Your task to perform on an android device: Do I have any events this weekend? Image 0: 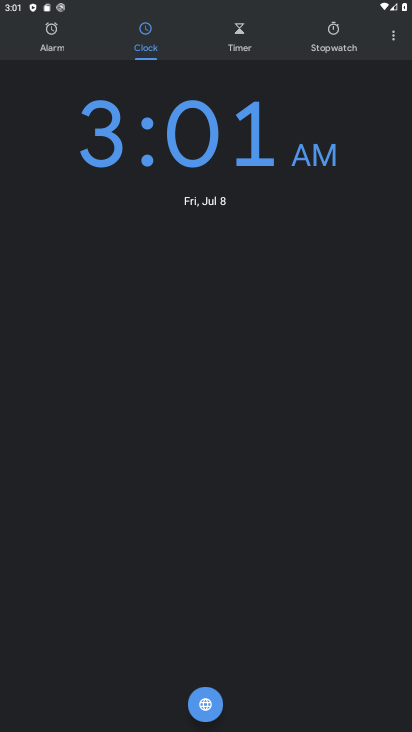
Step 0: press home button
Your task to perform on an android device: Do I have any events this weekend? Image 1: 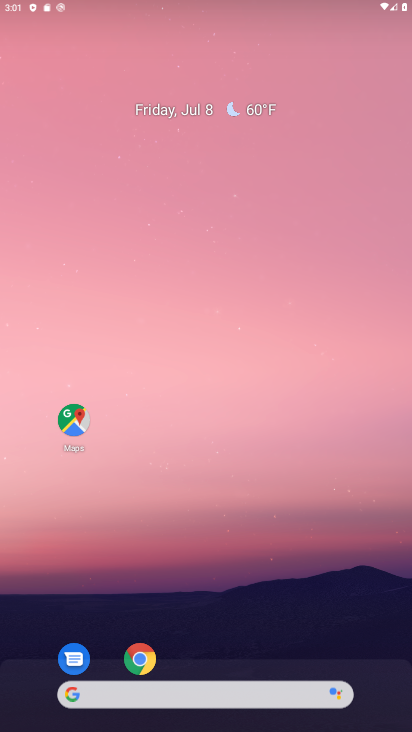
Step 1: drag from (268, 644) to (273, 152)
Your task to perform on an android device: Do I have any events this weekend? Image 2: 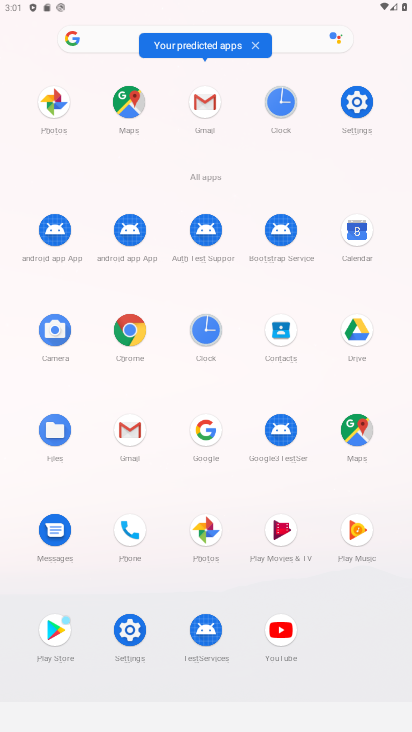
Step 2: click (356, 233)
Your task to perform on an android device: Do I have any events this weekend? Image 3: 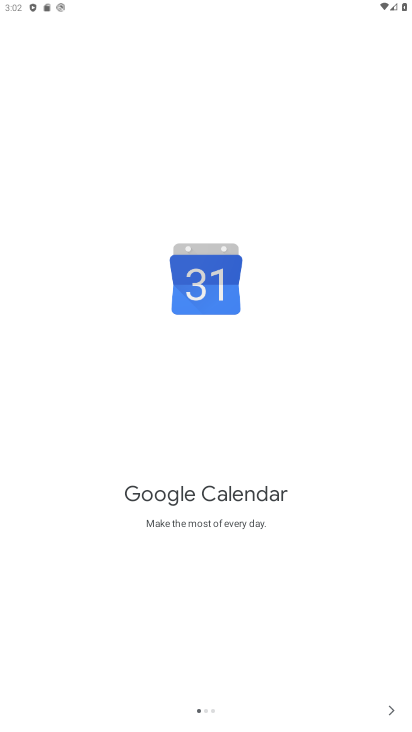
Step 3: click (384, 707)
Your task to perform on an android device: Do I have any events this weekend? Image 4: 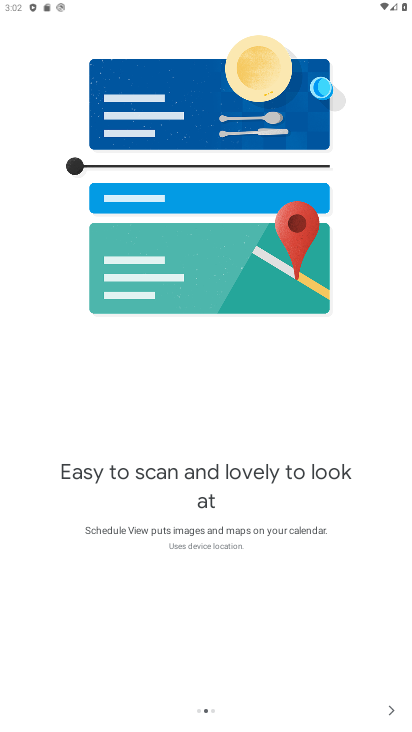
Step 4: click (385, 707)
Your task to perform on an android device: Do I have any events this weekend? Image 5: 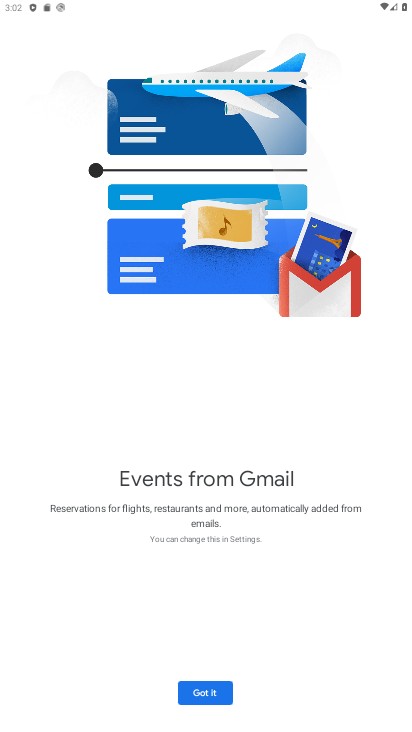
Step 5: click (385, 707)
Your task to perform on an android device: Do I have any events this weekend? Image 6: 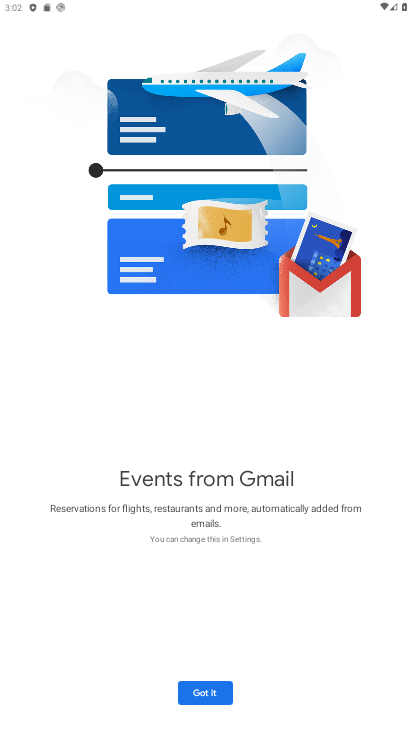
Step 6: click (226, 697)
Your task to perform on an android device: Do I have any events this weekend? Image 7: 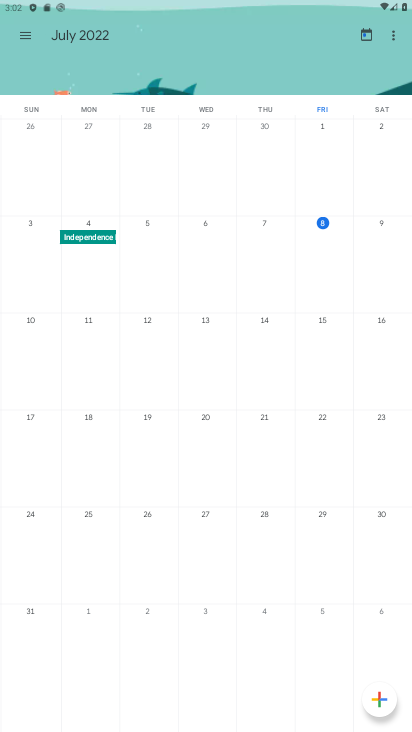
Step 7: drag from (321, 330) to (324, 560)
Your task to perform on an android device: Do I have any events this weekend? Image 8: 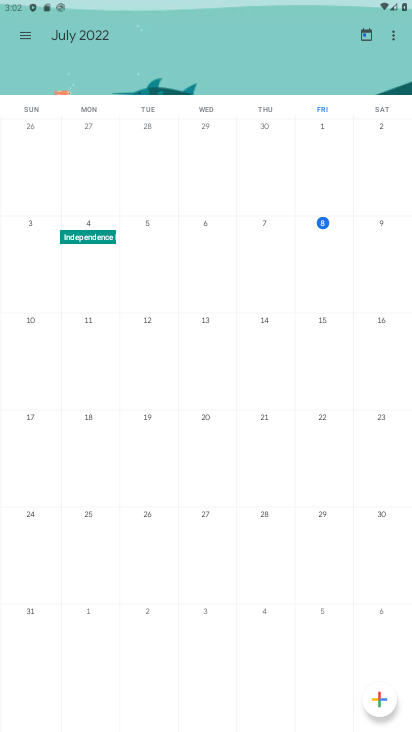
Step 8: click (380, 241)
Your task to perform on an android device: Do I have any events this weekend? Image 9: 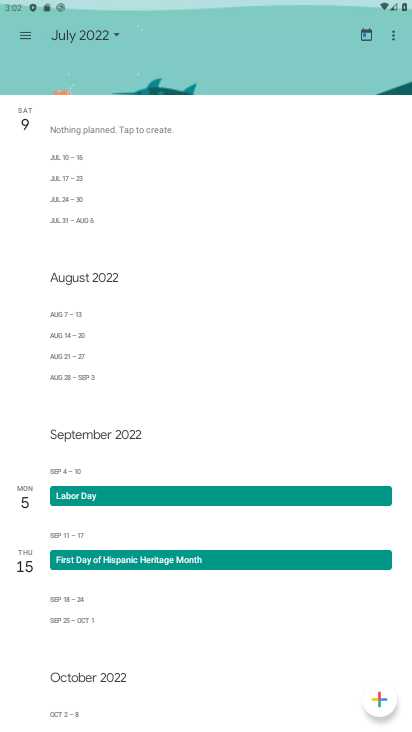
Step 9: task complete